Your task to perform on an android device: Go to ESPN.com Image 0: 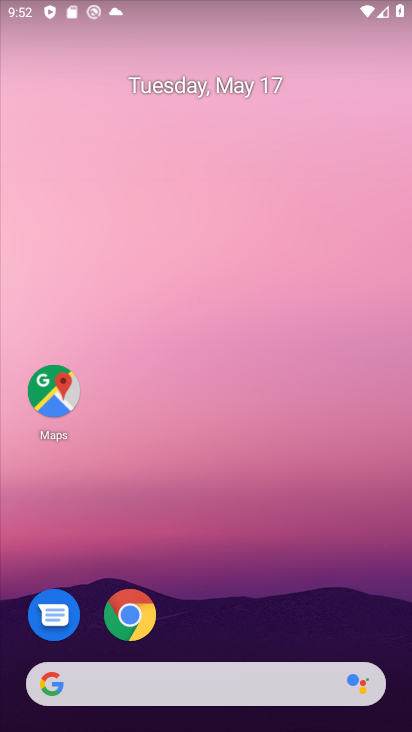
Step 0: press home button
Your task to perform on an android device: Go to ESPN.com Image 1: 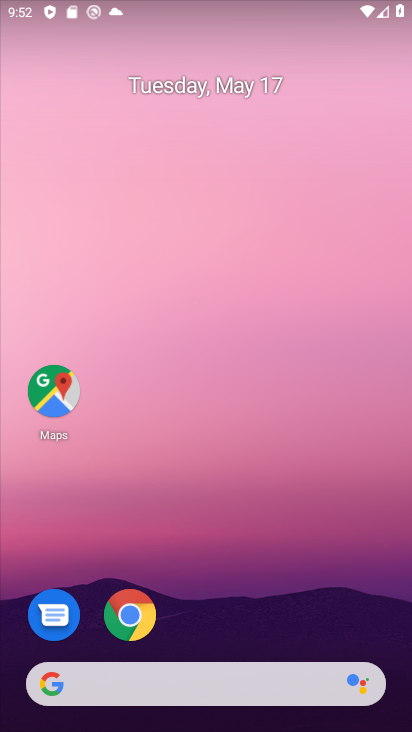
Step 1: click (134, 623)
Your task to perform on an android device: Go to ESPN.com Image 2: 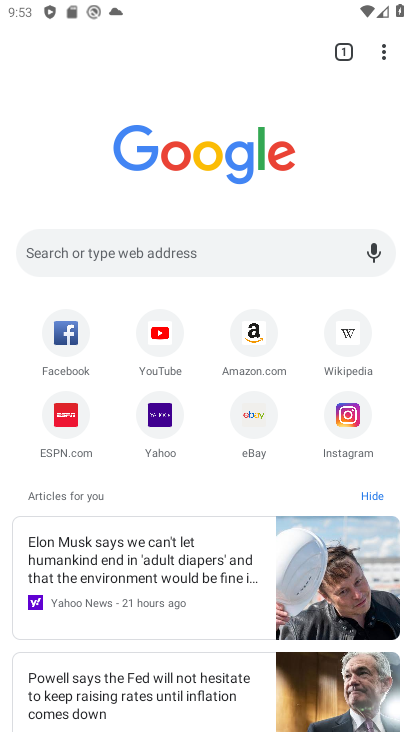
Step 2: click (63, 420)
Your task to perform on an android device: Go to ESPN.com Image 3: 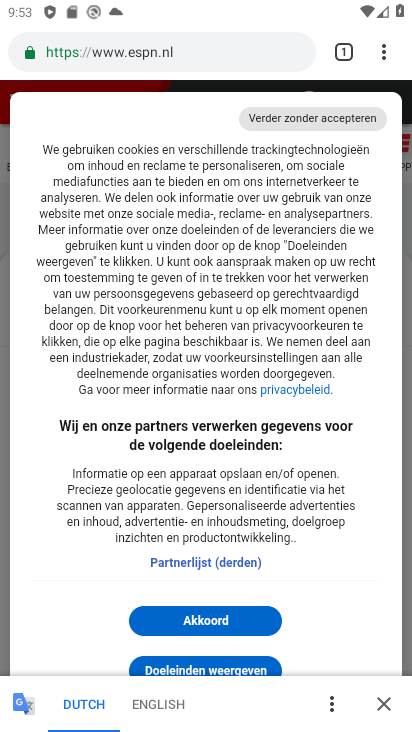
Step 3: click (163, 697)
Your task to perform on an android device: Go to ESPN.com Image 4: 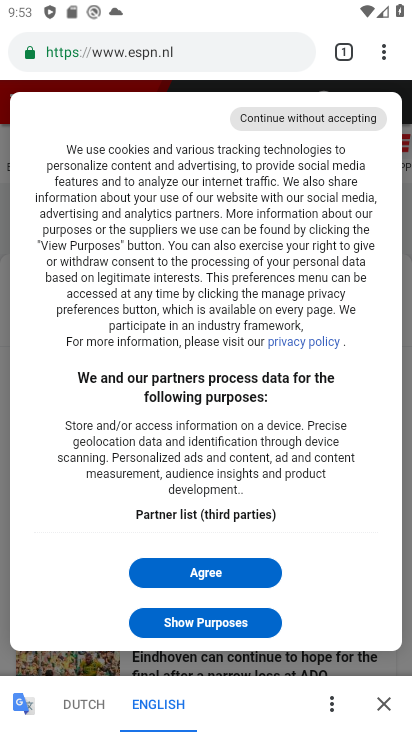
Step 4: click (227, 627)
Your task to perform on an android device: Go to ESPN.com Image 5: 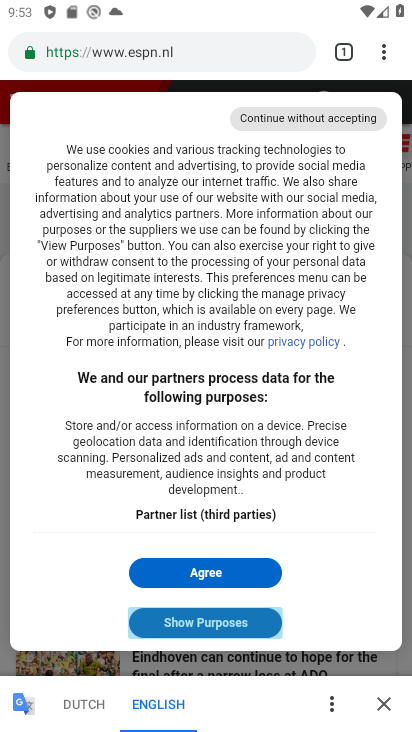
Step 5: click (232, 578)
Your task to perform on an android device: Go to ESPN.com Image 6: 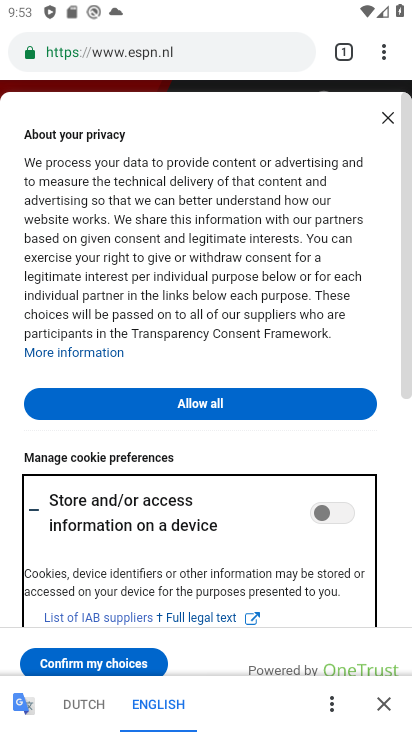
Step 6: click (202, 406)
Your task to perform on an android device: Go to ESPN.com Image 7: 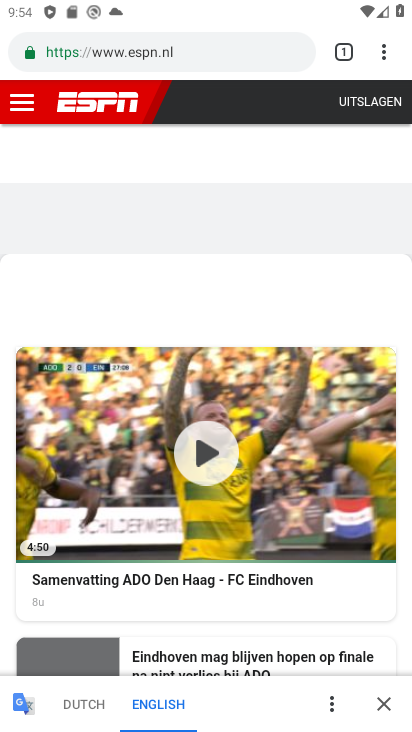
Step 7: task complete